Your task to perform on an android device: Open Chrome and go to the settings page Image 0: 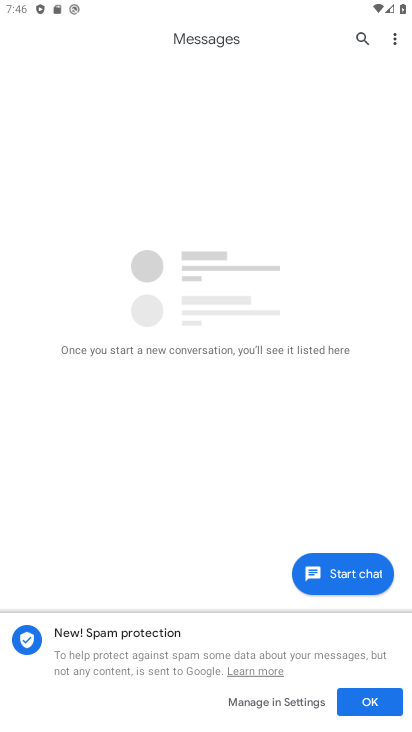
Step 0: press home button
Your task to perform on an android device: Open Chrome and go to the settings page Image 1: 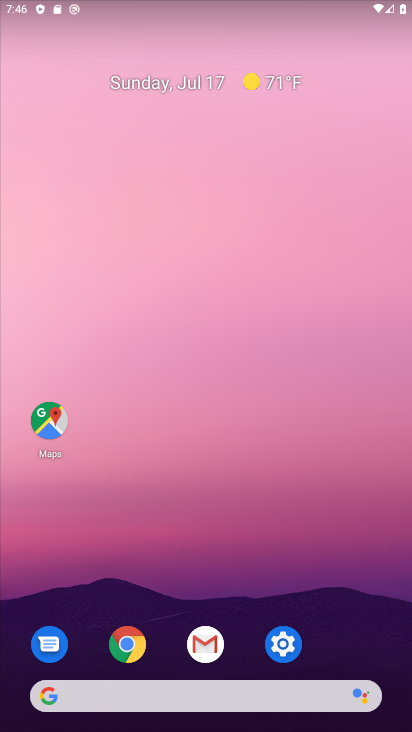
Step 1: click (126, 638)
Your task to perform on an android device: Open Chrome and go to the settings page Image 2: 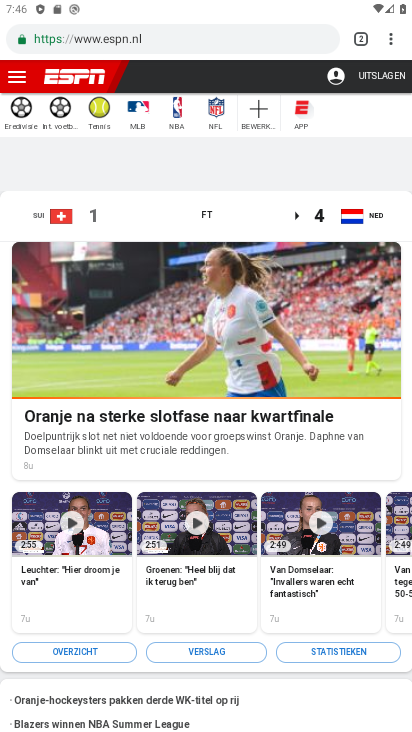
Step 2: click (390, 42)
Your task to perform on an android device: Open Chrome and go to the settings page Image 3: 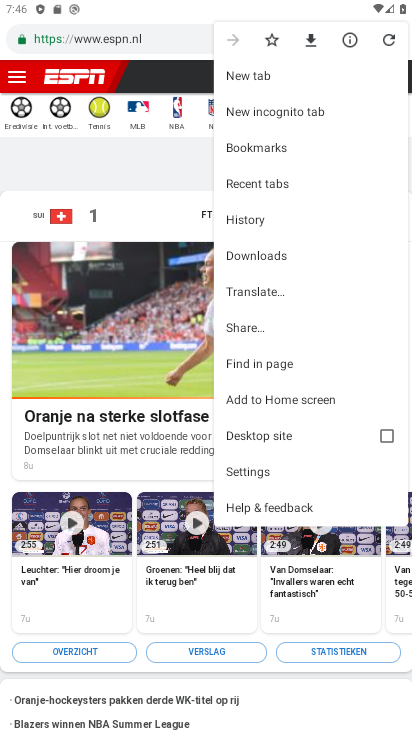
Step 3: click (246, 466)
Your task to perform on an android device: Open Chrome and go to the settings page Image 4: 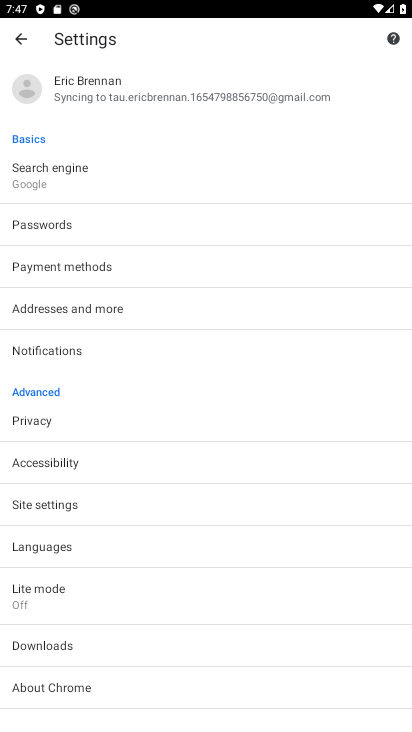
Step 4: task complete